Your task to perform on an android device: Show me recent news Image 0: 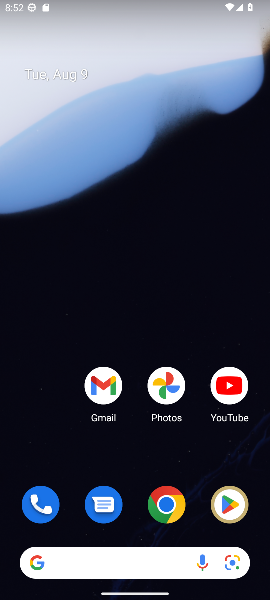
Step 0: drag from (20, 265) to (264, 338)
Your task to perform on an android device: Show me recent news Image 1: 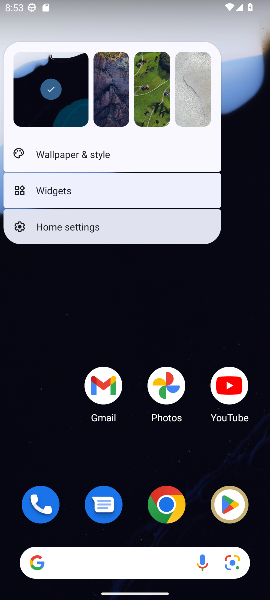
Step 1: click (110, 329)
Your task to perform on an android device: Show me recent news Image 2: 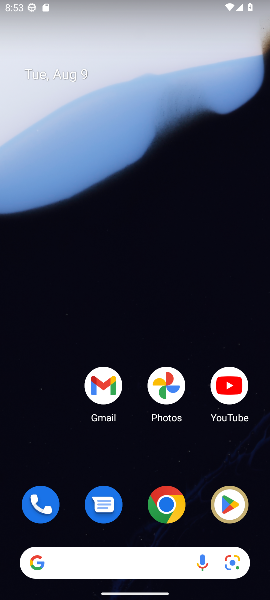
Step 2: task complete